Your task to perform on an android device: Turn off the flashlight Image 0: 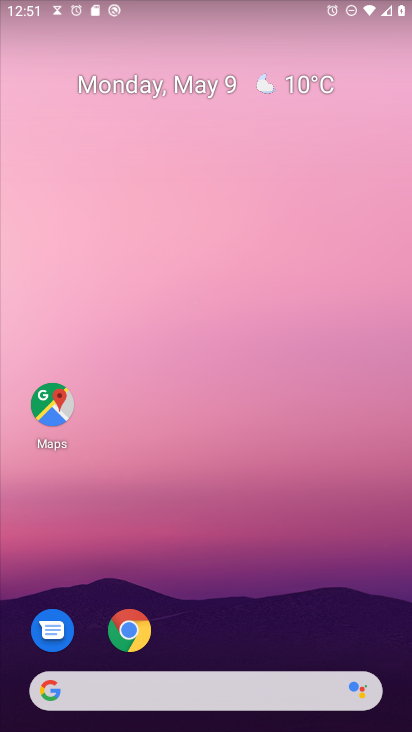
Step 0: drag from (255, 3) to (201, 540)
Your task to perform on an android device: Turn off the flashlight Image 1: 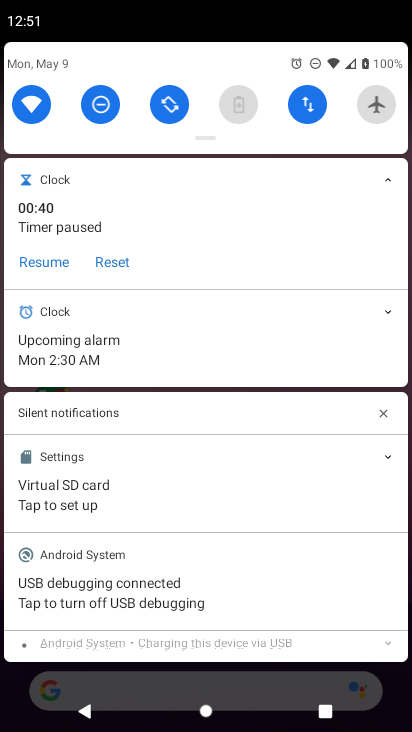
Step 1: task complete